Your task to perform on an android device: add a contact Image 0: 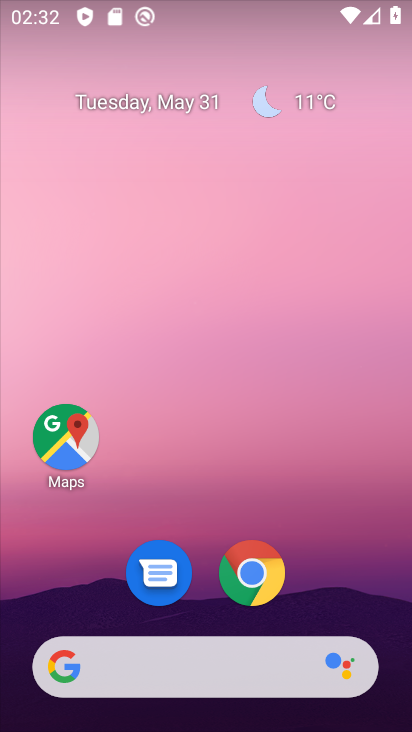
Step 0: drag from (354, 578) to (305, 58)
Your task to perform on an android device: add a contact Image 1: 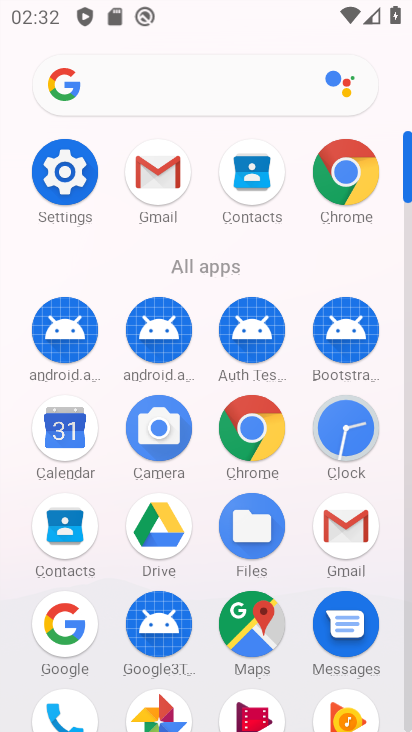
Step 1: click (247, 175)
Your task to perform on an android device: add a contact Image 2: 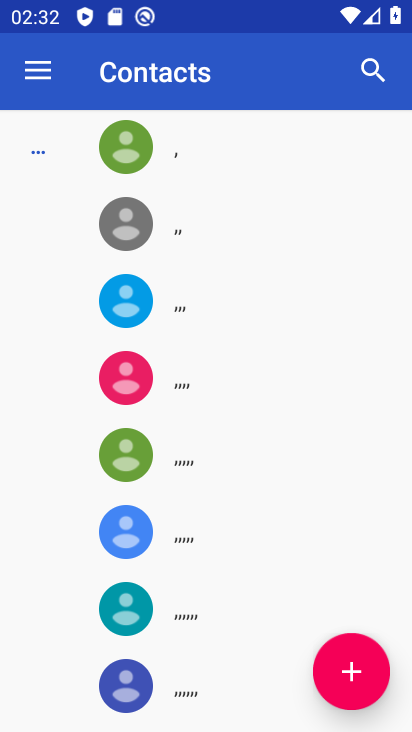
Step 2: click (350, 667)
Your task to perform on an android device: add a contact Image 3: 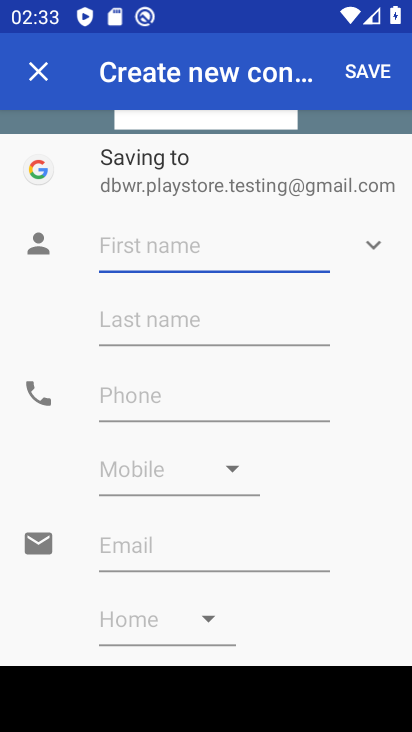
Step 3: click (179, 245)
Your task to perform on an android device: add a contact Image 4: 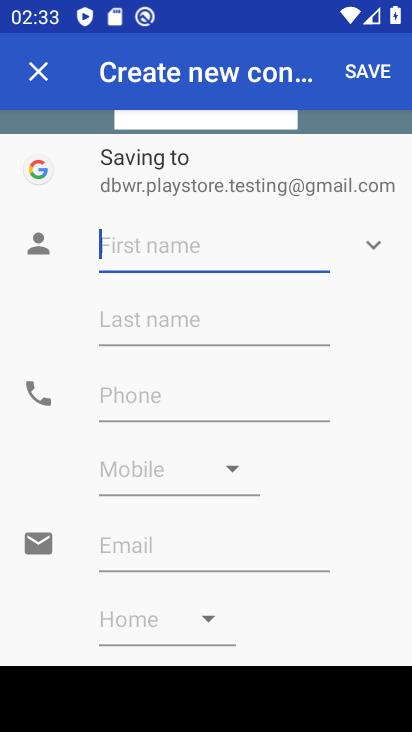
Step 4: type "hkjhbkjb"
Your task to perform on an android device: add a contact Image 5: 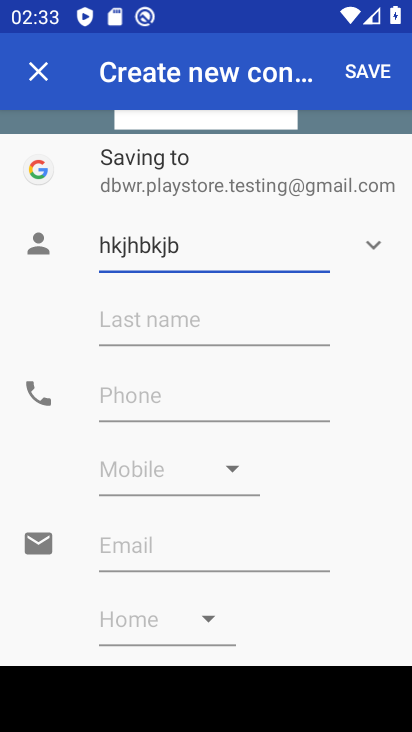
Step 5: click (160, 394)
Your task to perform on an android device: add a contact Image 6: 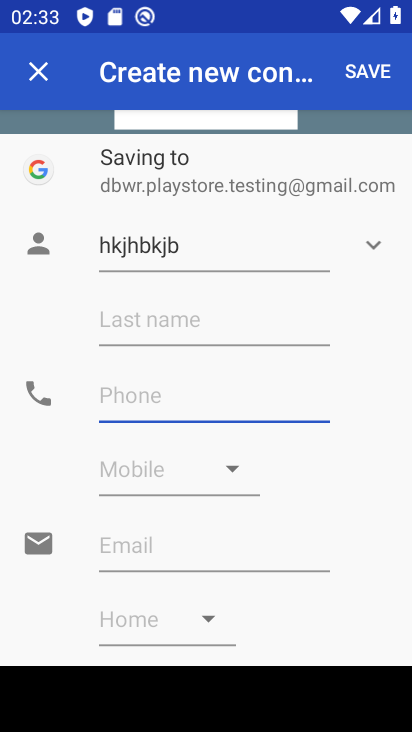
Step 6: type "899798798"
Your task to perform on an android device: add a contact Image 7: 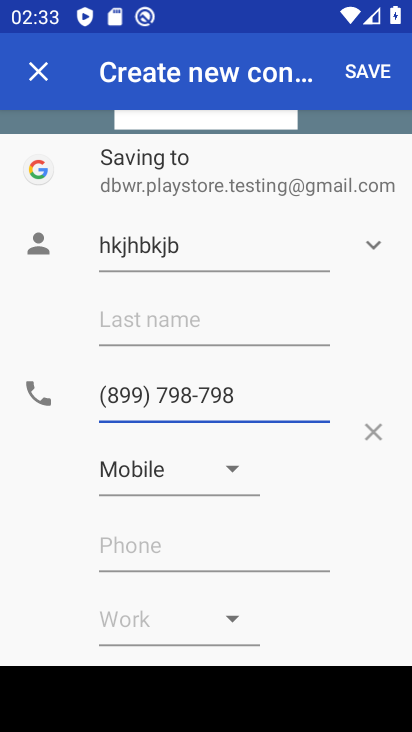
Step 7: click (371, 79)
Your task to perform on an android device: add a contact Image 8: 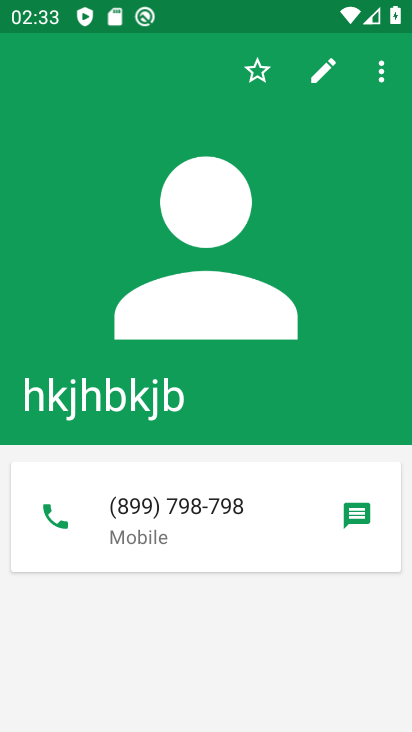
Step 8: task complete